Your task to perform on an android device: Go to privacy settings Image 0: 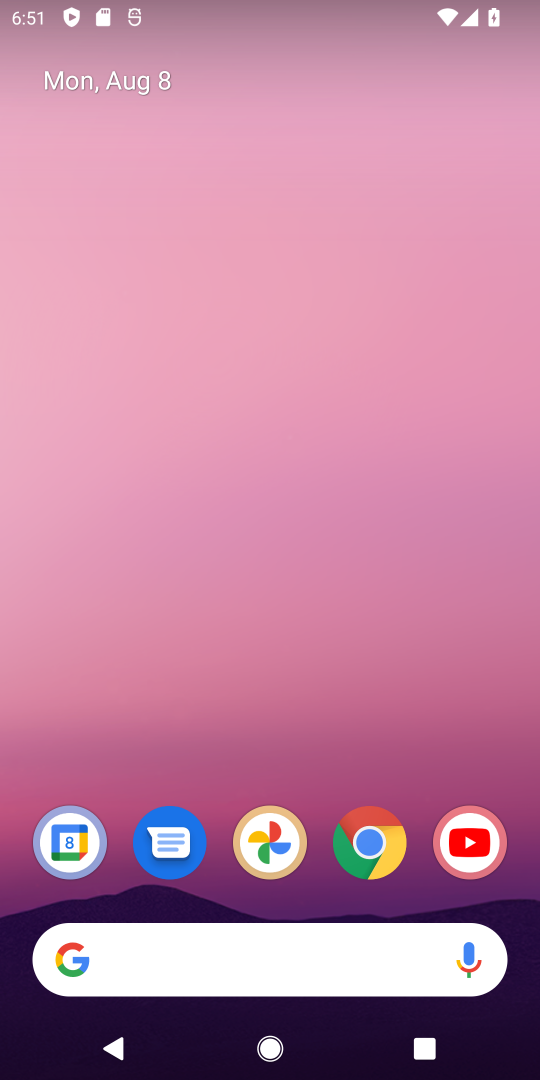
Step 0: drag from (228, 915) to (187, 55)
Your task to perform on an android device: Go to privacy settings Image 1: 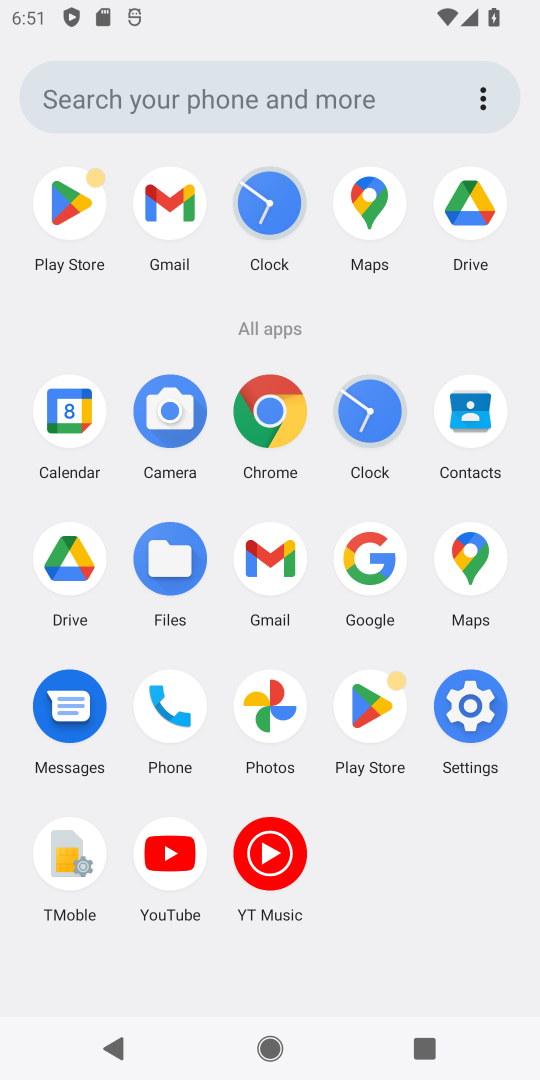
Step 1: click (474, 703)
Your task to perform on an android device: Go to privacy settings Image 2: 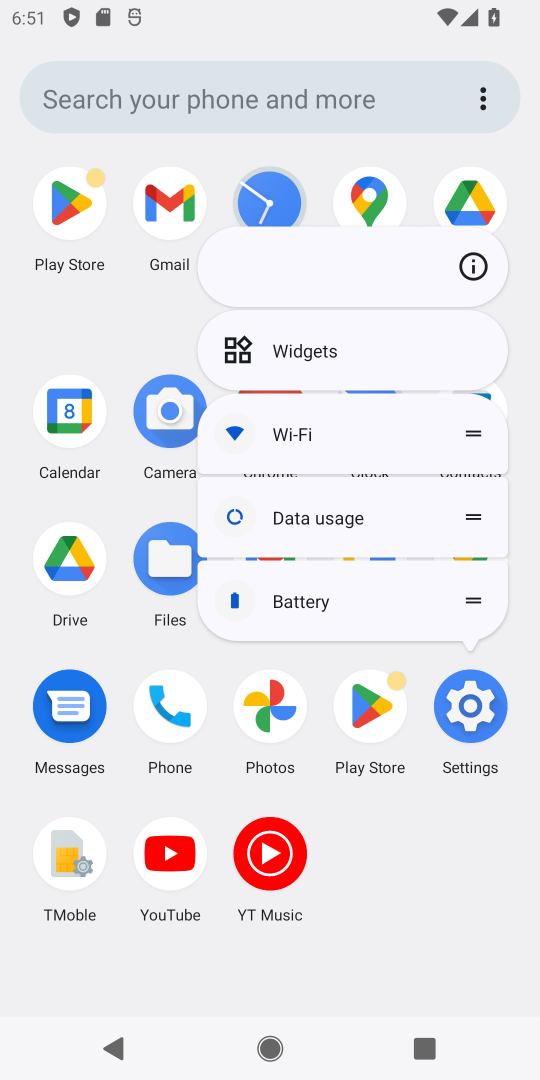
Step 2: click (517, 679)
Your task to perform on an android device: Go to privacy settings Image 3: 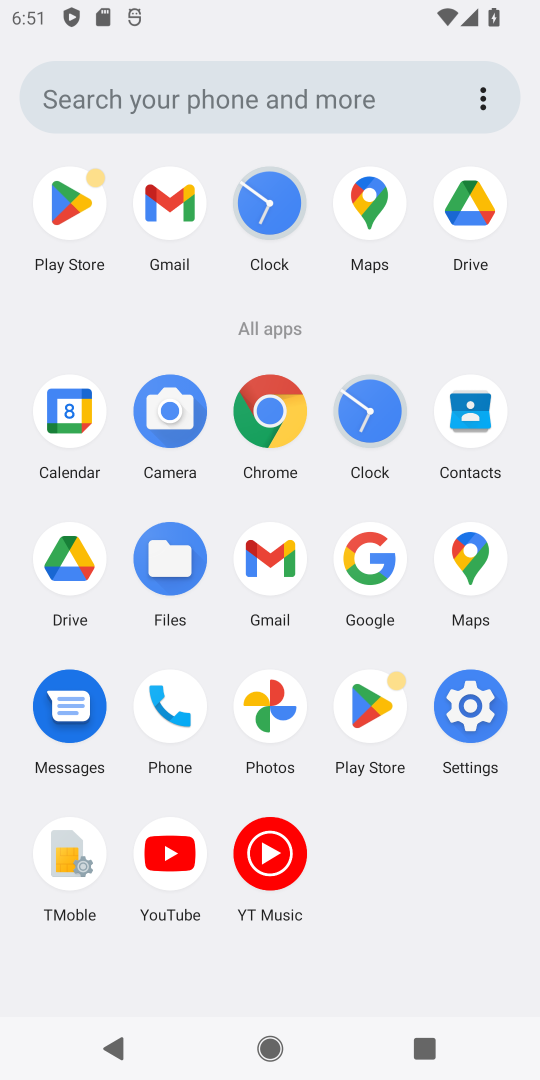
Step 3: click (494, 686)
Your task to perform on an android device: Go to privacy settings Image 4: 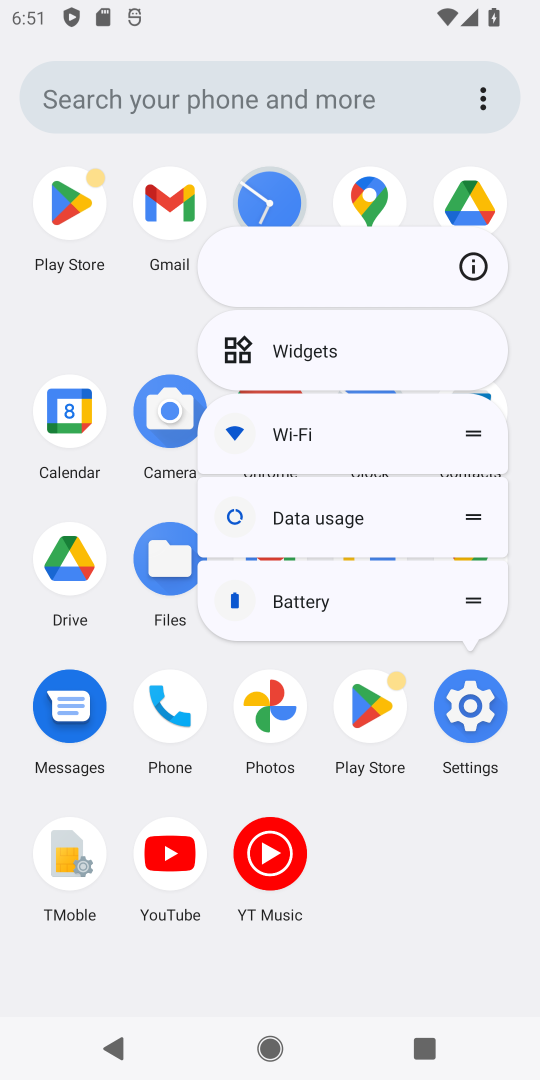
Step 4: click (484, 710)
Your task to perform on an android device: Go to privacy settings Image 5: 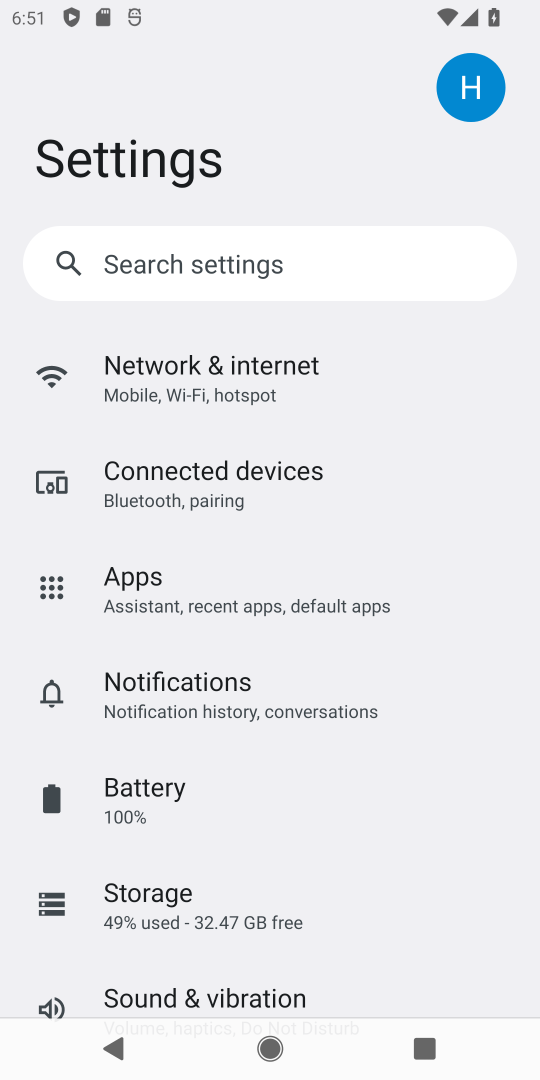
Step 5: drag from (295, 962) to (240, 285)
Your task to perform on an android device: Go to privacy settings Image 6: 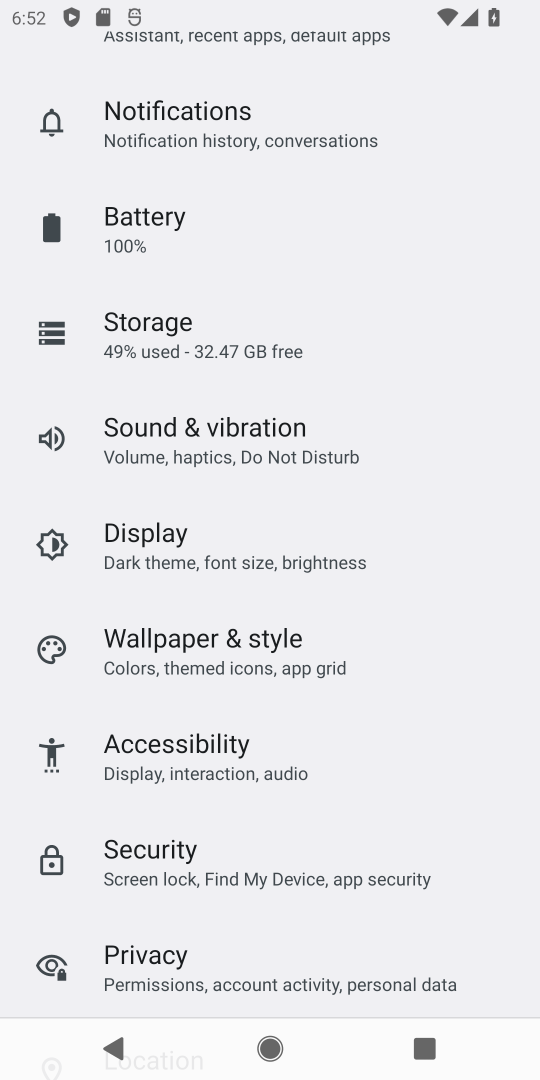
Step 6: click (127, 941)
Your task to perform on an android device: Go to privacy settings Image 7: 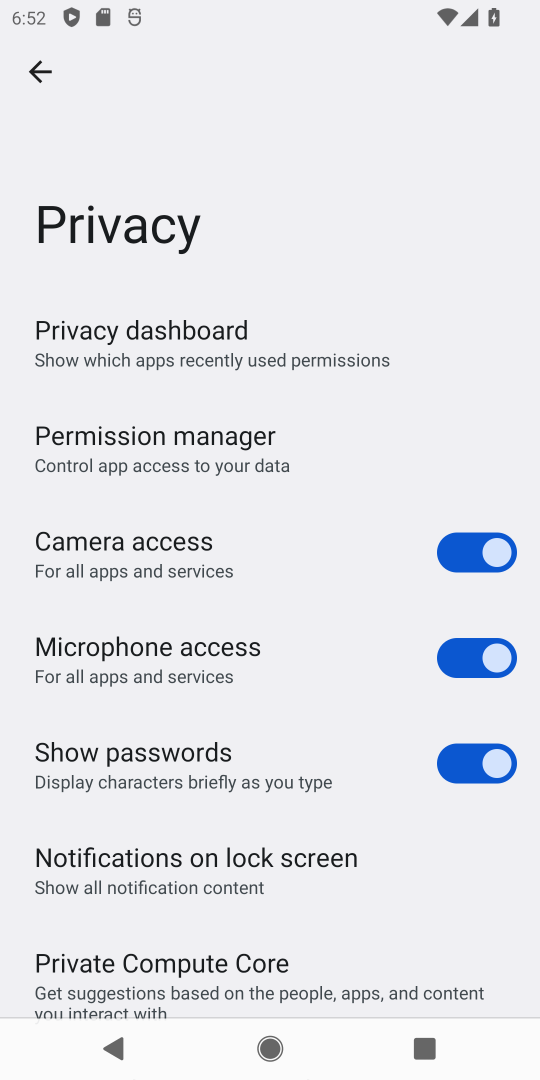
Step 7: task complete